Your task to perform on an android device: Do I have any events this weekend? Image 0: 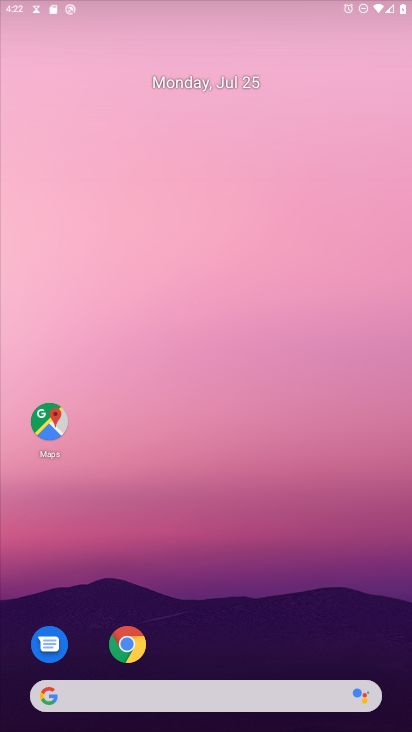
Step 0: press home button
Your task to perform on an android device: Do I have any events this weekend? Image 1: 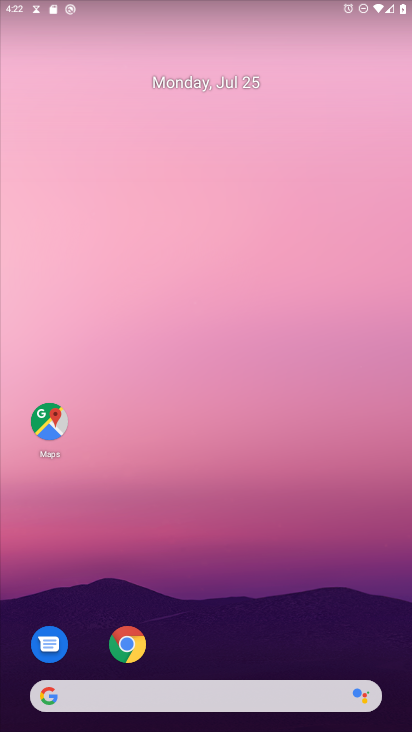
Step 1: drag from (279, 530) to (248, 93)
Your task to perform on an android device: Do I have any events this weekend? Image 2: 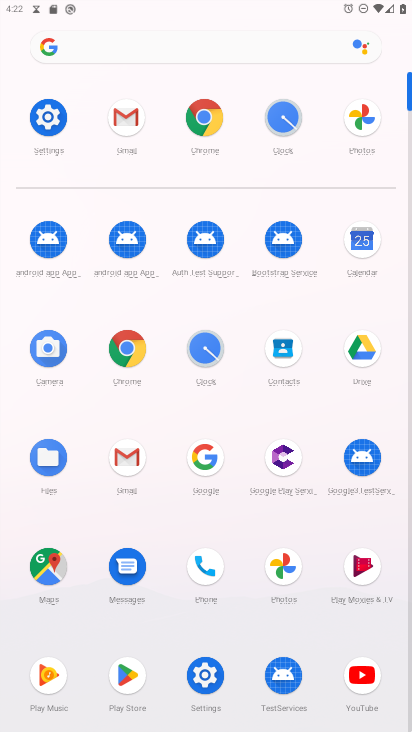
Step 2: click (368, 237)
Your task to perform on an android device: Do I have any events this weekend? Image 3: 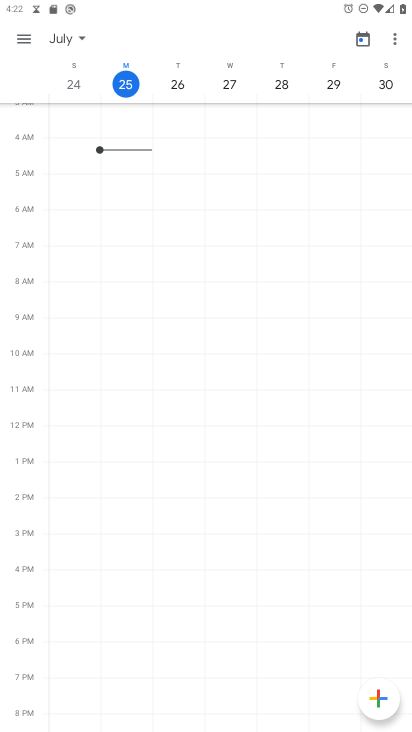
Step 3: click (18, 37)
Your task to perform on an android device: Do I have any events this weekend? Image 4: 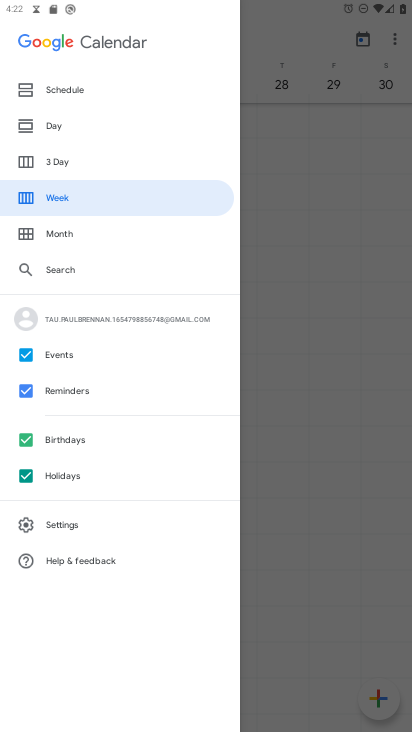
Step 4: click (85, 89)
Your task to perform on an android device: Do I have any events this weekend? Image 5: 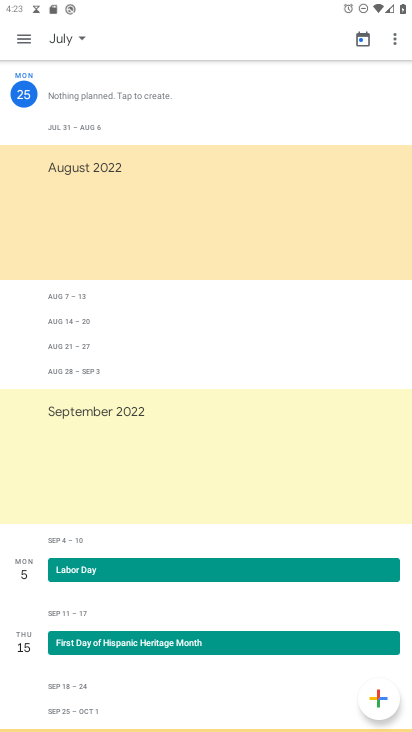
Step 5: task complete